Your task to perform on an android device: Search for "lenovo thinkpad" on walmart, select the first entry, and add it to the cart. Image 0: 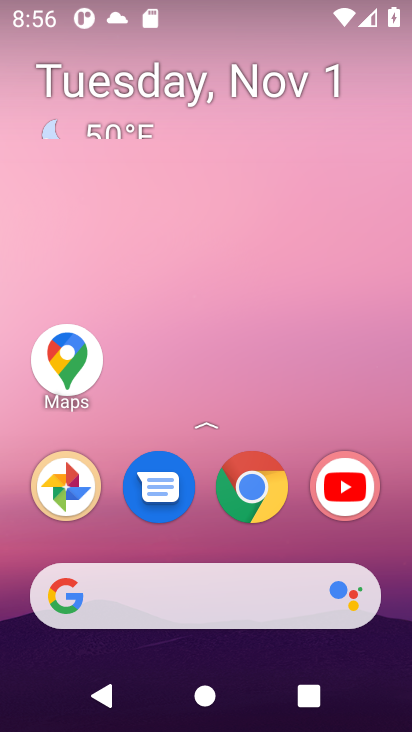
Step 0: press home button
Your task to perform on an android device: Search for "lenovo thinkpad" on walmart, select the first entry, and add it to the cart. Image 1: 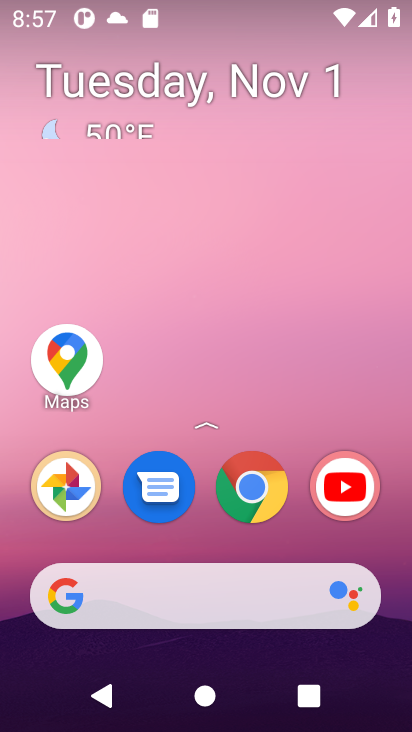
Step 1: drag from (206, 408) to (176, 87)
Your task to perform on an android device: Search for "lenovo thinkpad" on walmart, select the first entry, and add it to the cart. Image 2: 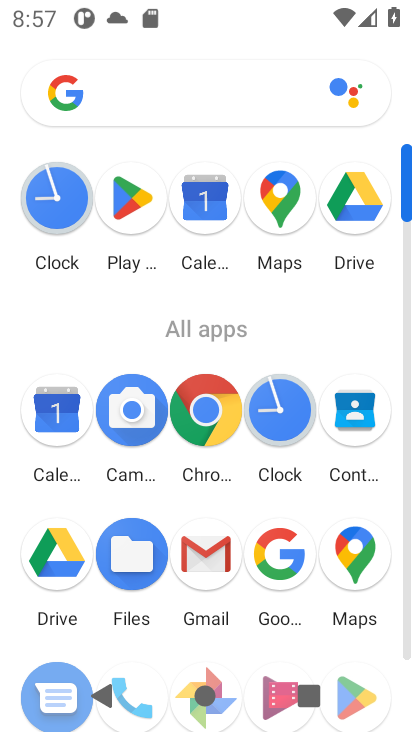
Step 2: click (206, 410)
Your task to perform on an android device: Search for "lenovo thinkpad" on walmart, select the first entry, and add it to the cart. Image 3: 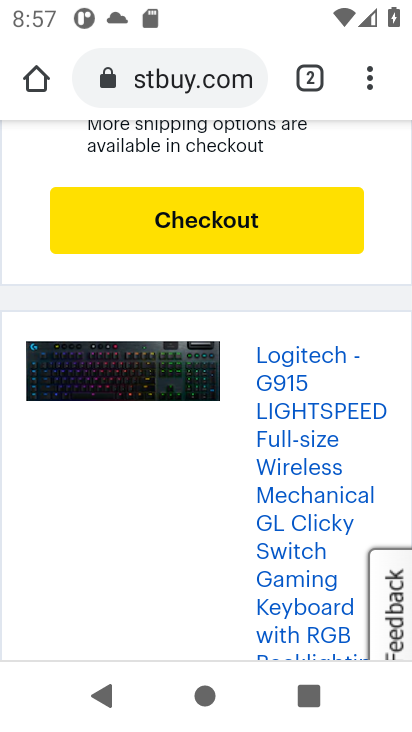
Step 3: click (163, 76)
Your task to perform on an android device: Search for "lenovo thinkpad" on walmart, select the first entry, and add it to the cart. Image 4: 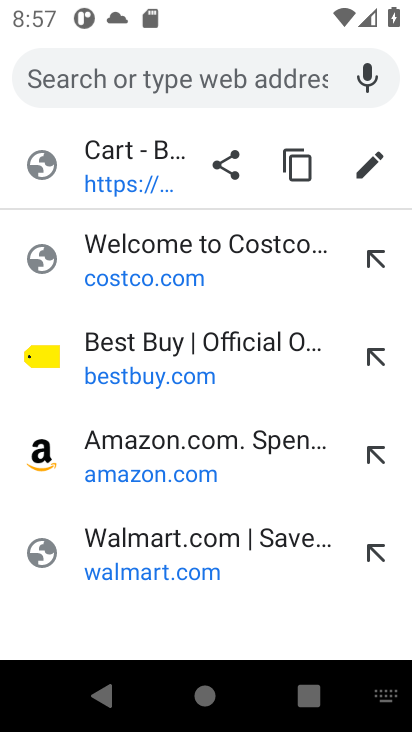
Step 4: click (142, 558)
Your task to perform on an android device: Search for "lenovo thinkpad" on walmart, select the first entry, and add it to the cart. Image 5: 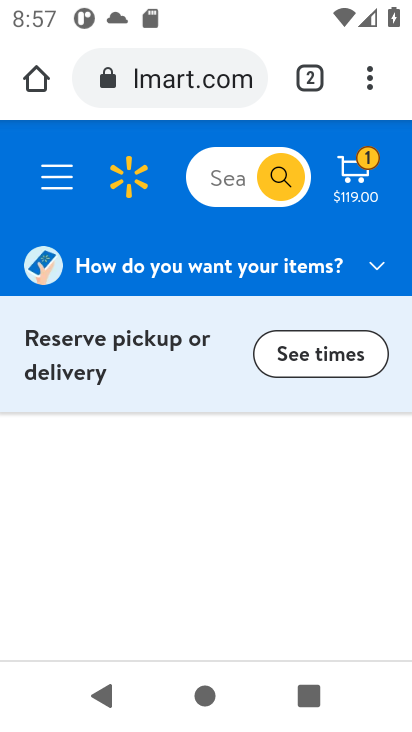
Step 5: click (228, 173)
Your task to perform on an android device: Search for "lenovo thinkpad" on walmart, select the first entry, and add it to the cart. Image 6: 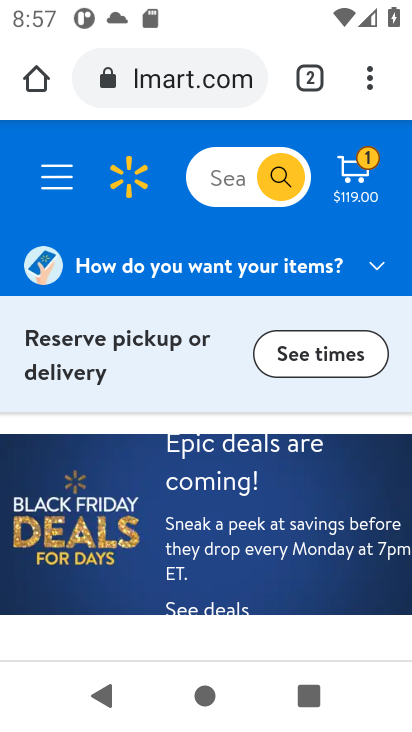
Step 6: click (218, 164)
Your task to perform on an android device: Search for "lenovo thinkpad" on walmart, select the first entry, and add it to the cart. Image 7: 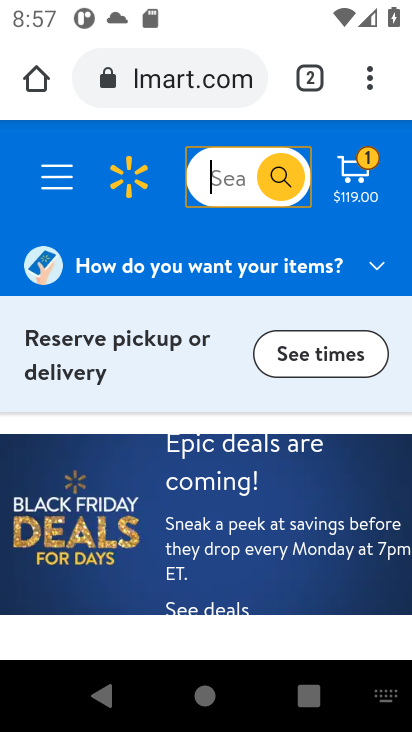
Step 7: type "lenovo thinkpad"
Your task to perform on an android device: Search for "lenovo thinkpad" on walmart, select the first entry, and add it to the cart. Image 8: 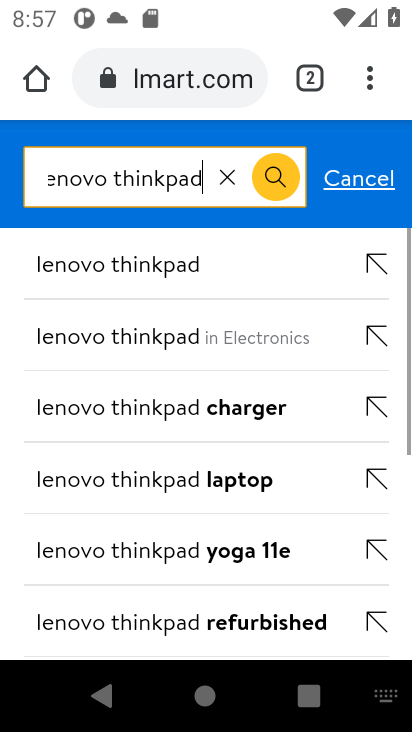
Step 8: click (171, 330)
Your task to perform on an android device: Search for "lenovo thinkpad" on walmart, select the first entry, and add it to the cart. Image 9: 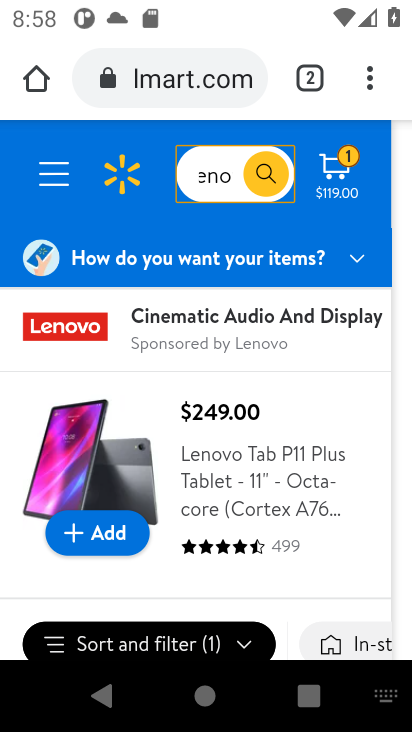
Step 9: drag from (185, 575) to (208, 306)
Your task to perform on an android device: Search for "lenovo thinkpad" on walmart, select the first entry, and add it to the cart. Image 10: 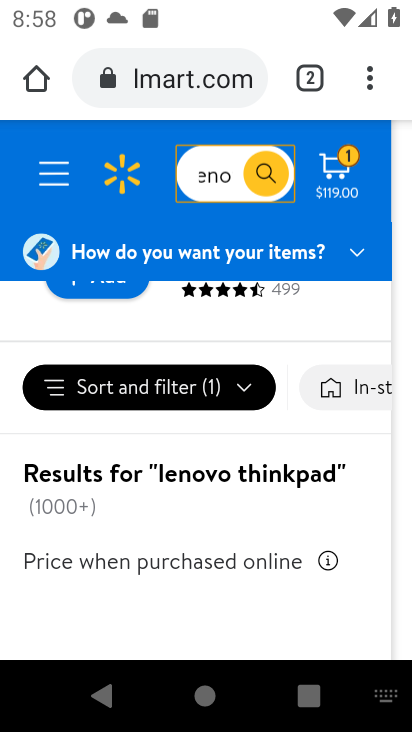
Step 10: drag from (189, 587) to (211, 256)
Your task to perform on an android device: Search for "lenovo thinkpad" on walmart, select the first entry, and add it to the cart. Image 11: 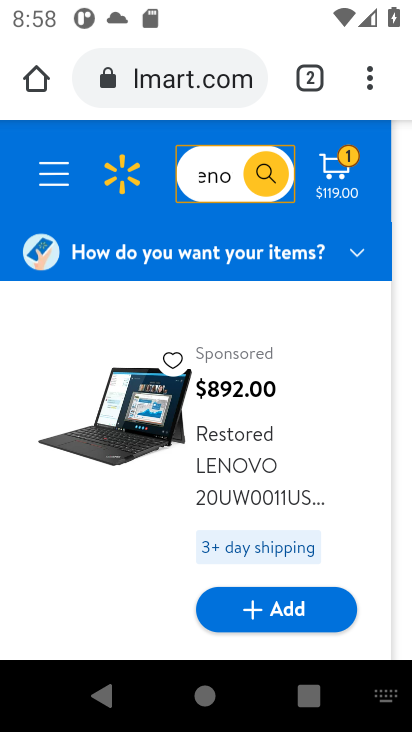
Step 11: click (269, 643)
Your task to perform on an android device: Search for "lenovo thinkpad" on walmart, select the first entry, and add it to the cart. Image 12: 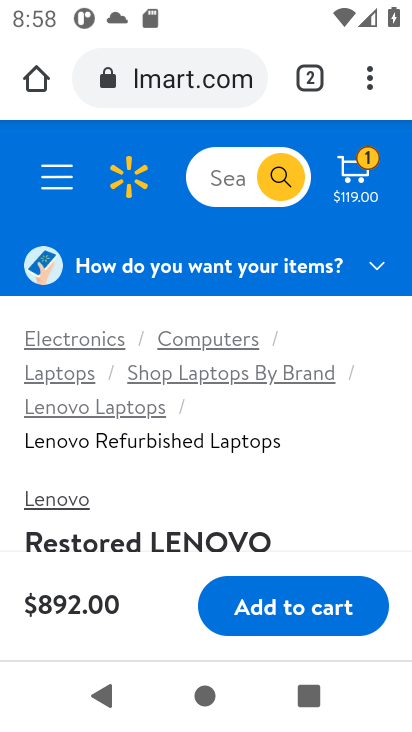
Step 12: drag from (149, 608) to (154, 406)
Your task to perform on an android device: Search for "lenovo thinkpad" on walmart, select the first entry, and add it to the cart. Image 13: 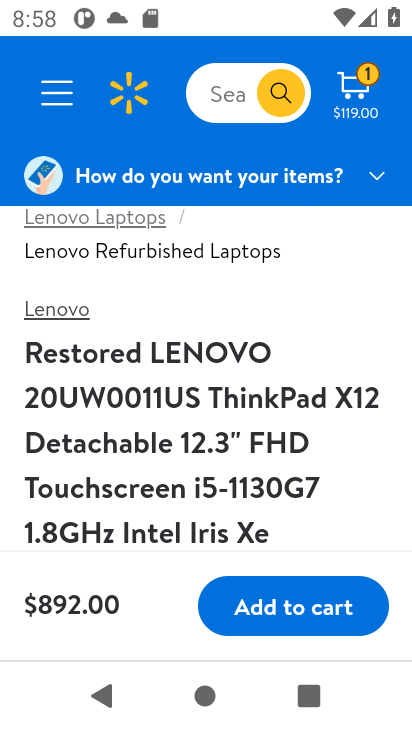
Step 13: click (358, 75)
Your task to perform on an android device: Search for "lenovo thinkpad" on walmart, select the first entry, and add it to the cart. Image 14: 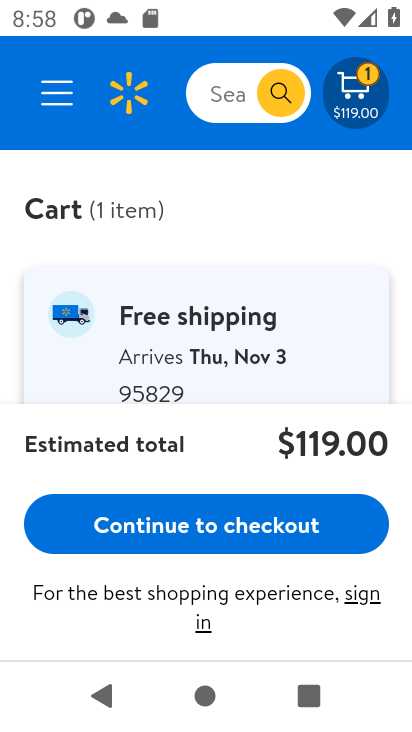
Step 14: task complete